Your task to perform on an android device: Turn off the flashlight Image 0: 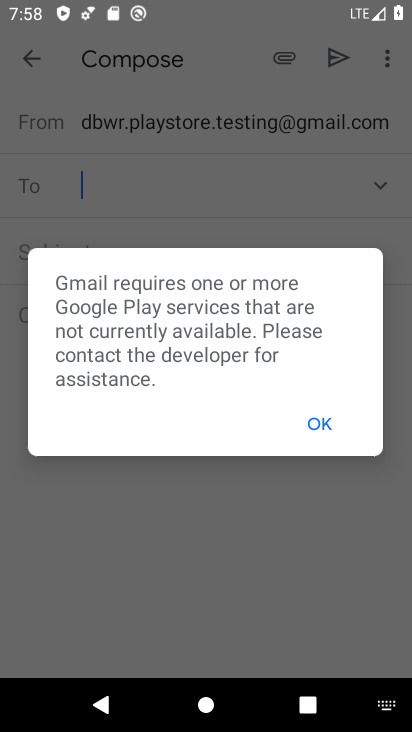
Step 0: press home button
Your task to perform on an android device: Turn off the flashlight Image 1: 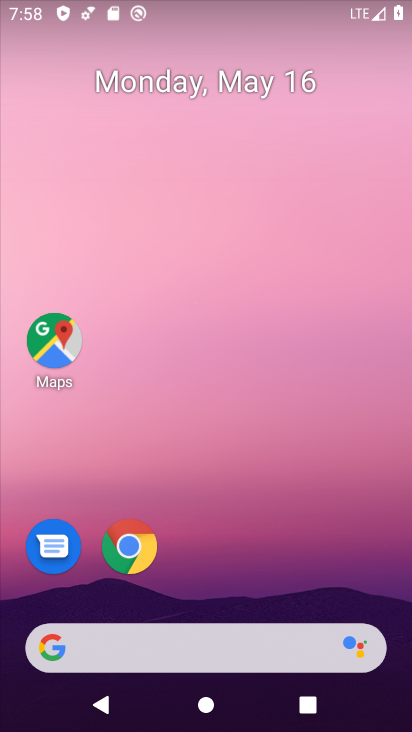
Step 1: drag from (222, 563) to (309, 94)
Your task to perform on an android device: Turn off the flashlight Image 2: 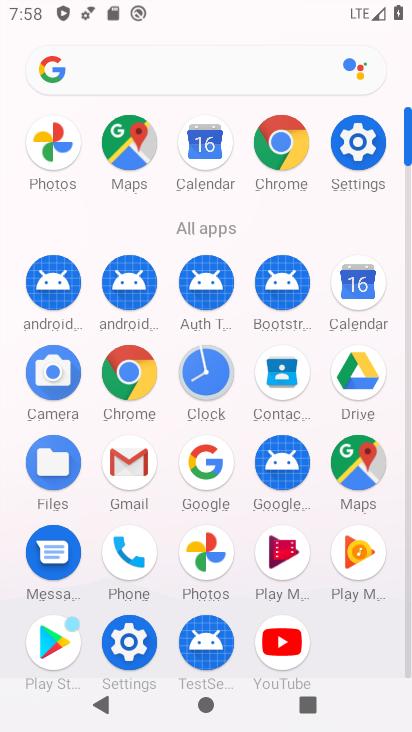
Step 2: click (350, 167)
Your task to perform on an android device: Turn off the flashlight Image 3: 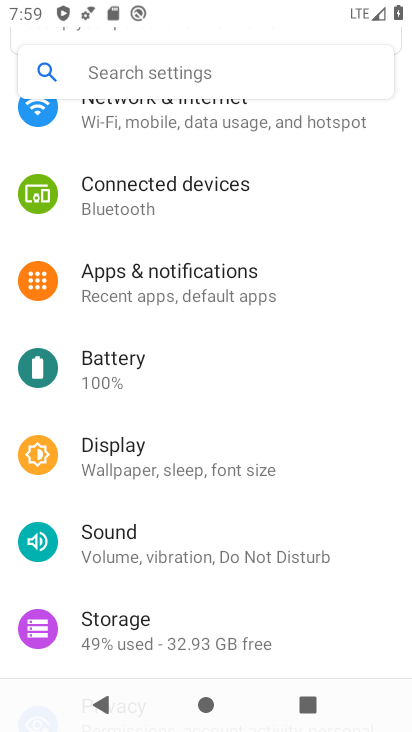
Step 3: click (247, 274)
Your task to perform on an android device: Turn off the flashlight Image 4: 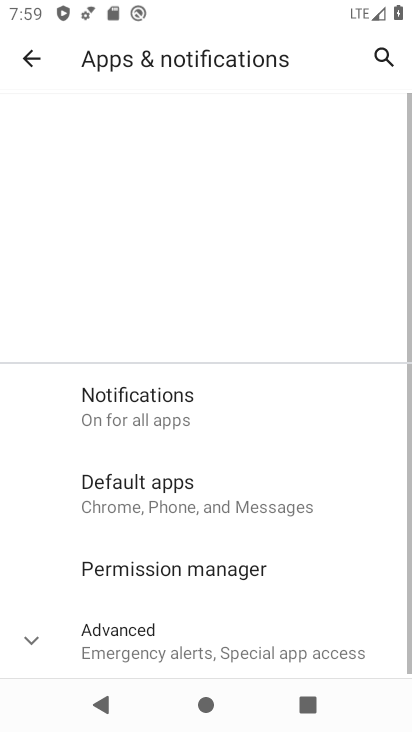
Step 4: task complete